Your task to perform on an android device: clear all cookies in the chrome app Image 0: 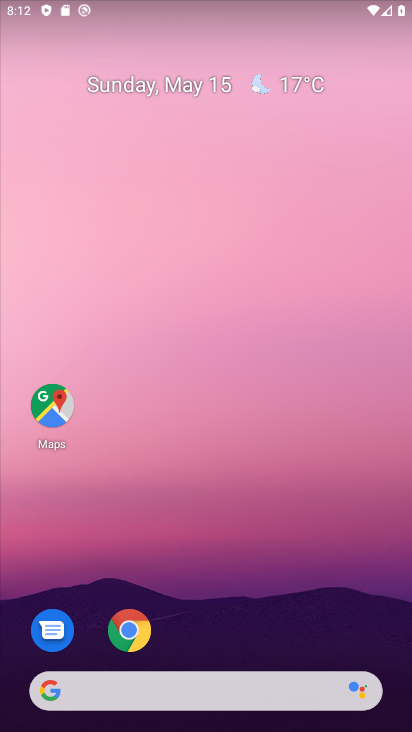
Step 0: drag from (286, 546) to (253, 81)
Your task to perform on an android device: clear all cookies in the chrome app Image 1: 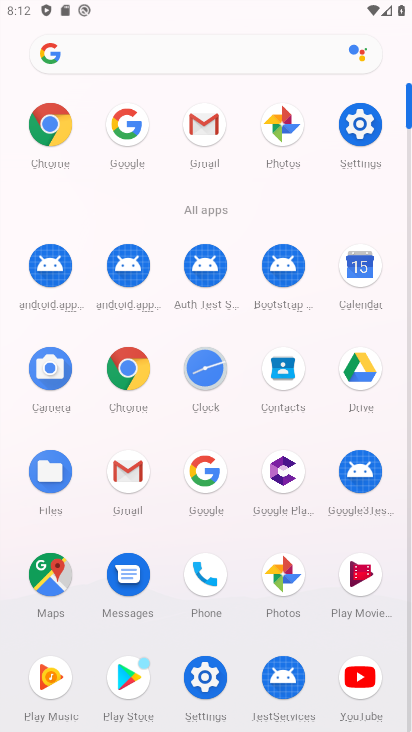
Step 1: click (42, 118)
Your task to perform on an android device: clear all cookies in the chrome app Image 2: 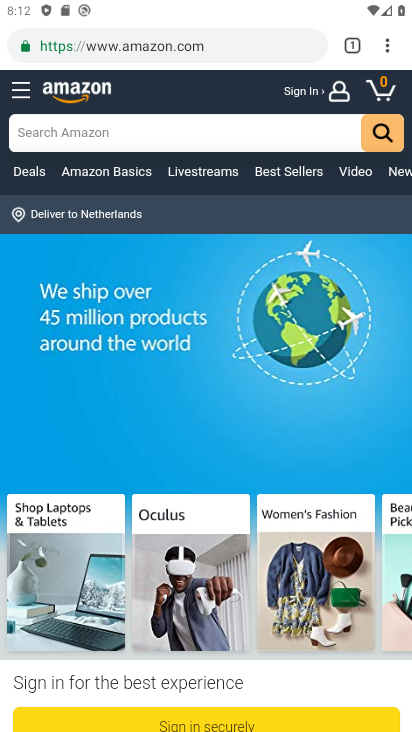
Step 2: click (390, 51)
Your task to perform on an android device: clear all cookies in the chrome app Image 3: 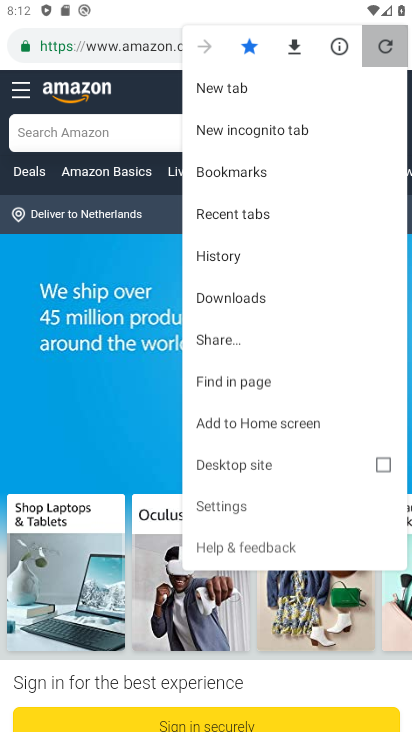
Step 3: drag from (390, 51) to (250, 255)
Your task to perform on an android device: clear all cookies in the chrome app Image 4: 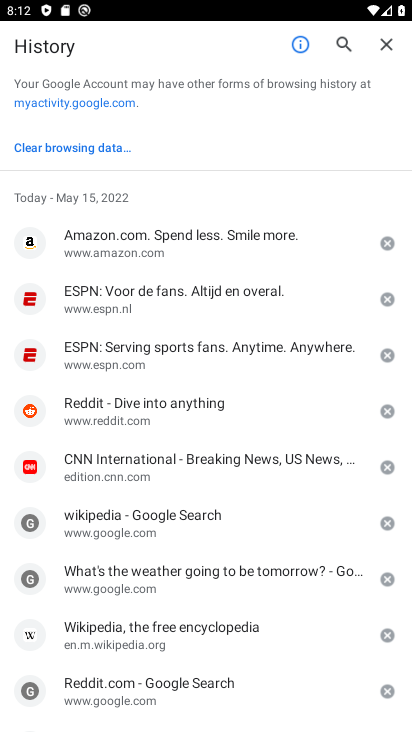
Step 4: click (43, 172)
Your task to perform on an android device: clear all cookies in the chrome app Image 5: 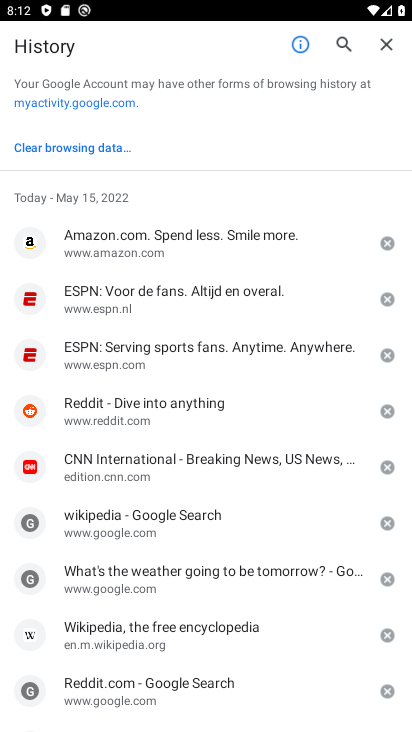
Step 5: click (60, 151)
Your task to perform on an android device: clear all cookies in the chrome app Image 6: 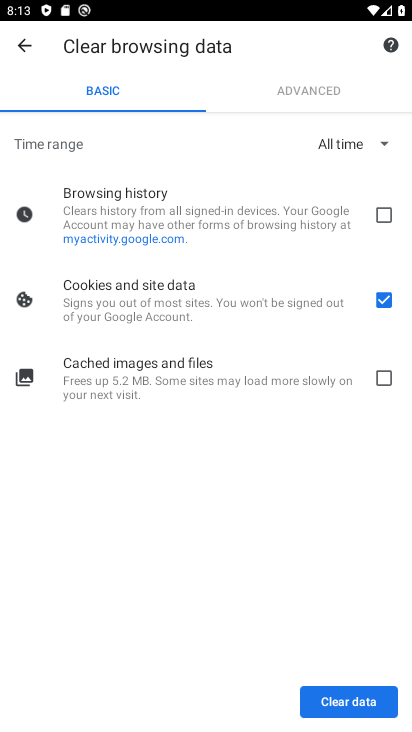
Step 6: click (348, 680)
Your task to perform on an android device: clear all cookies in the chrome app Image 7: 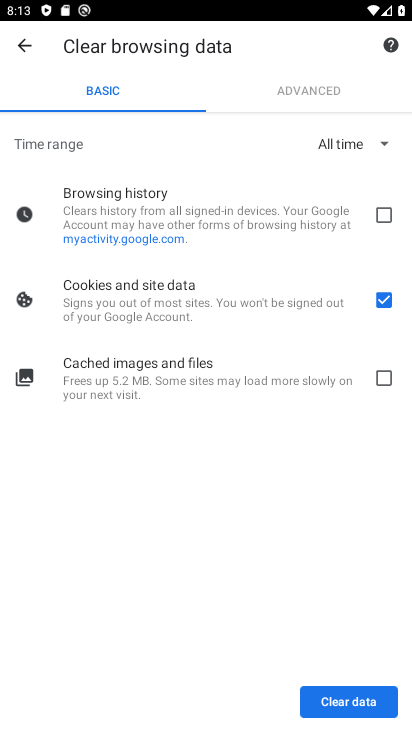
Step 7: click (356, 695)
Your task to perform on an android device: clear all cookies in the chrome app Image 8: 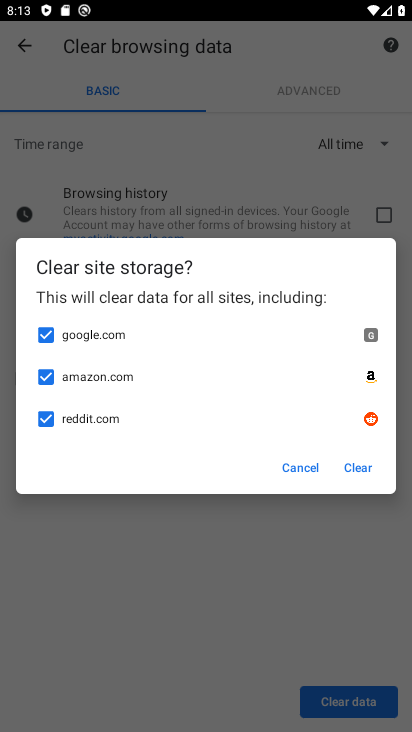
Step 8: click (371, 469)
Your task to perform on an android device: clear all cookies in the chrome app Image 9: 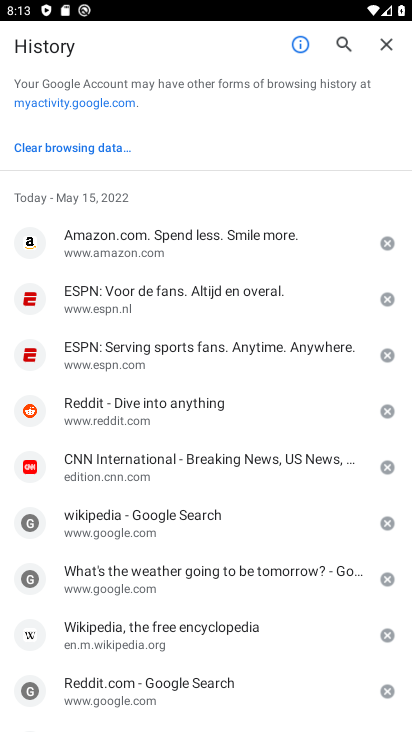
Step 9: task complete